Your task to perform on an android device: Search for sushi restaurants on Maps Image 0: 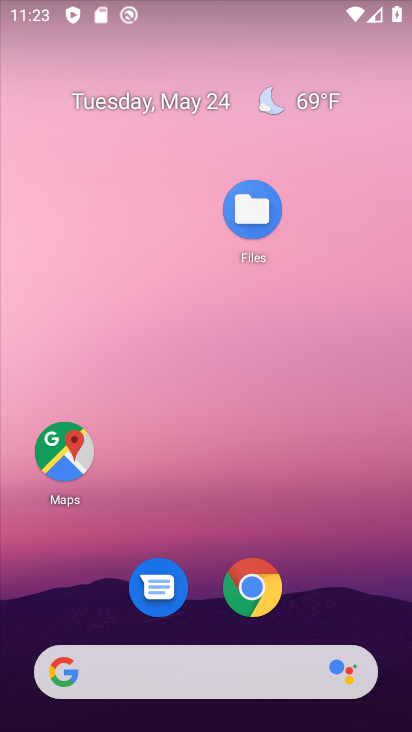
Step 0: click (67, 451)
Your task to perform on an android device: Search for sushi restaurants on Maps Image 1: 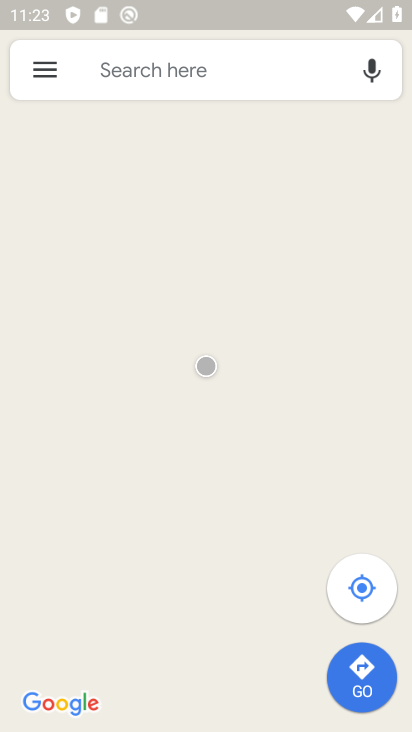
Step 1: click (223, 76)
Your task to perform on an android device: Search for sushi restaurants on Maps Image 2: 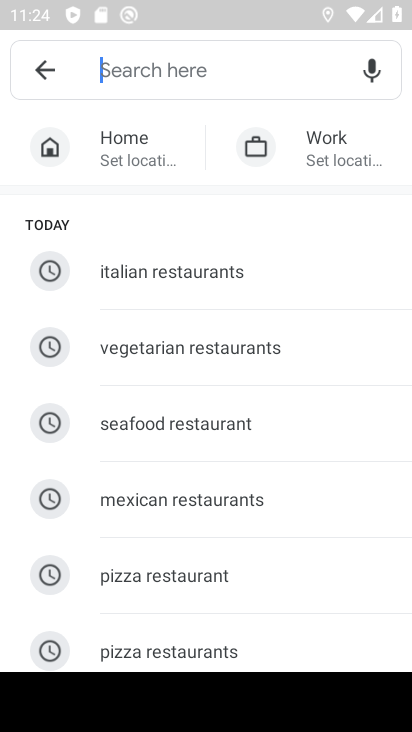
Step 2: type "sushi restaurants"
Your task to perform on an android device: Search for sushi restaurants on Maps Image 3: 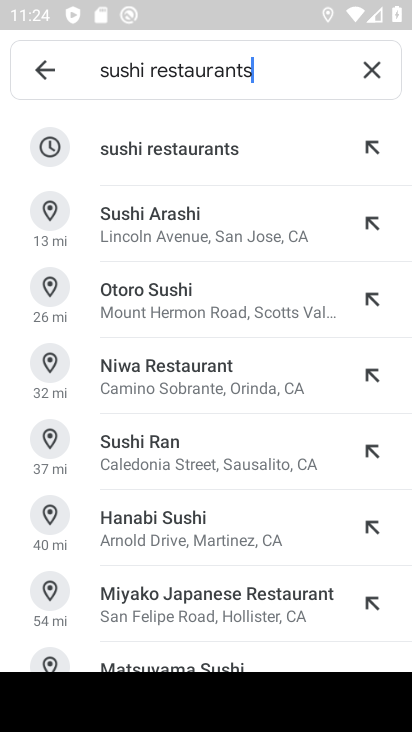
Step 3: click (223, 150)
Your task to perform on an android device: Search for sushi restaurants on Maps Image 4: 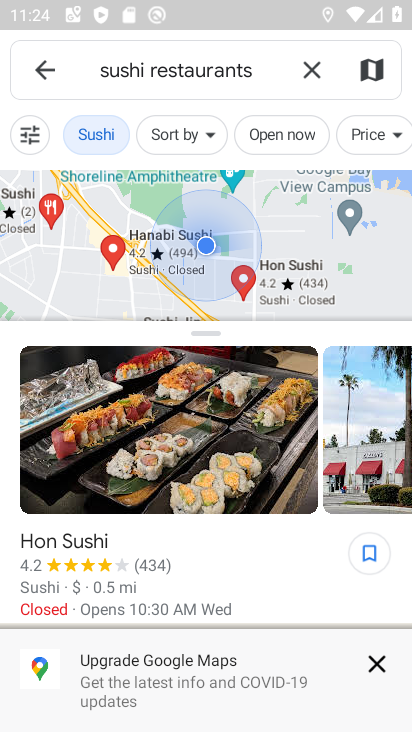
Step 4: task complete